Your task to perform on an android device: create a new album in the google photos Image 0: 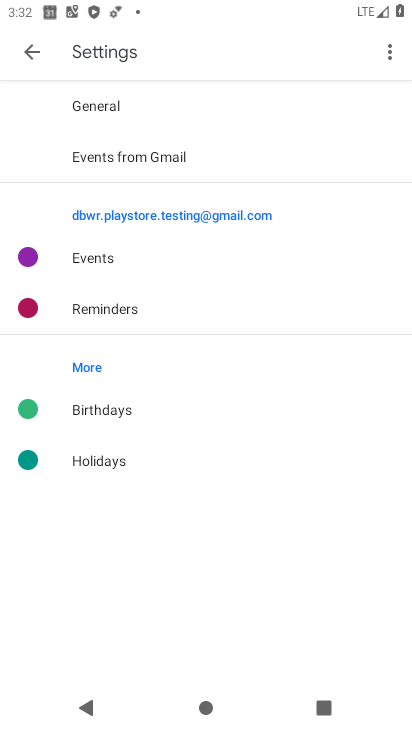
Step 0: press back button
Your task to perform on an android device: create a new album in the google photos Image 1: 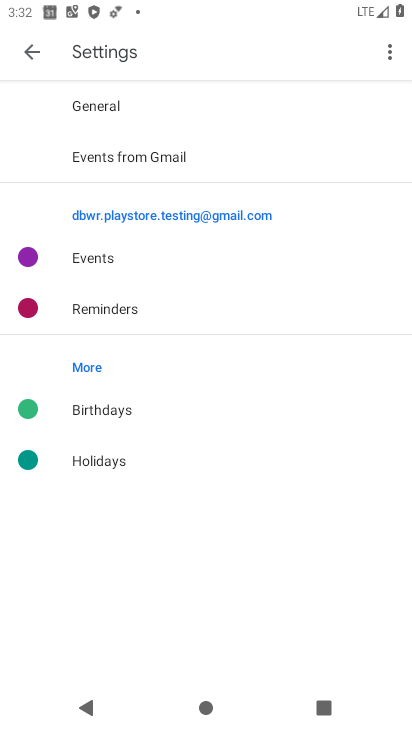
Step 1: press back button
Your task to perform on an android device: create a new album in the google photos Image 2: 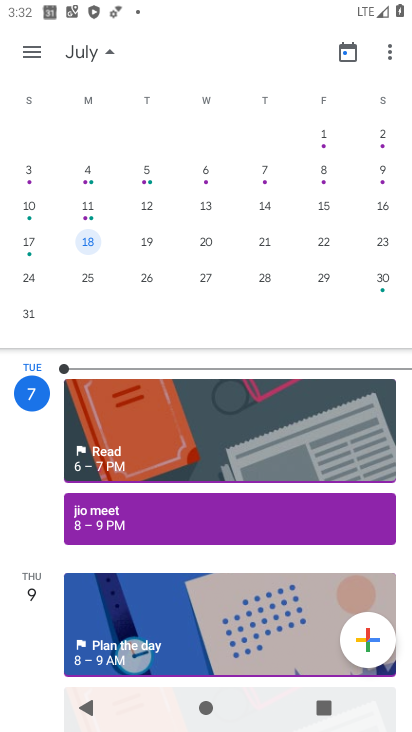
Step 2: press back button
Your task to perform on an android device: create a new album in the google photos Image 3: 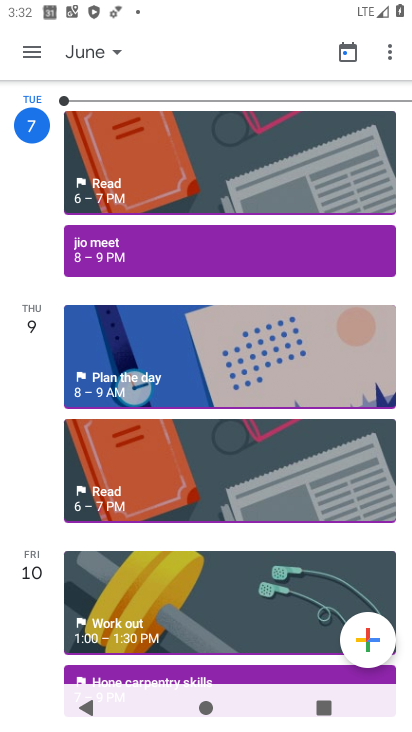
Step 3: press back button
Your task to perform on an android device: create a new album in the google photos Image 4: 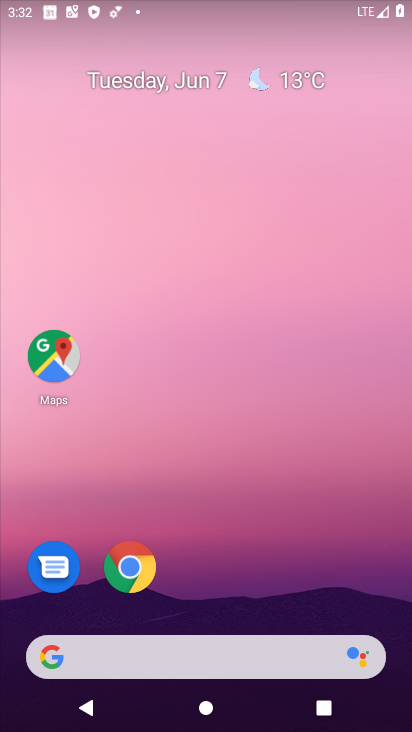
Step 4: drag from (237, 613) to (293, 45)
Your task to perform on an android device: create a new album in the google photos Image 5: 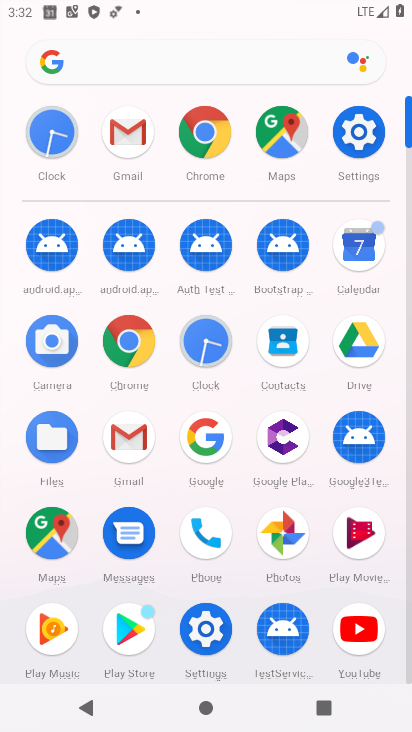
Step 5: click (275, 545)
Your task to perform on an android device: create a new album in the google photos Image 6: 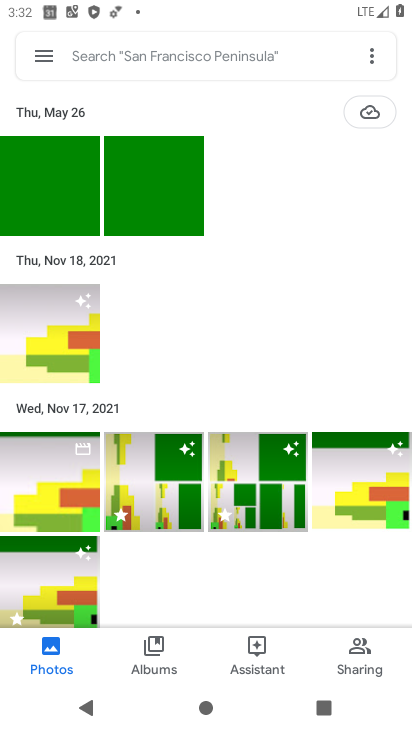
Step 6: click (370, 47)
Your task to perform on an android device: create a new album in the google photos Image 7: 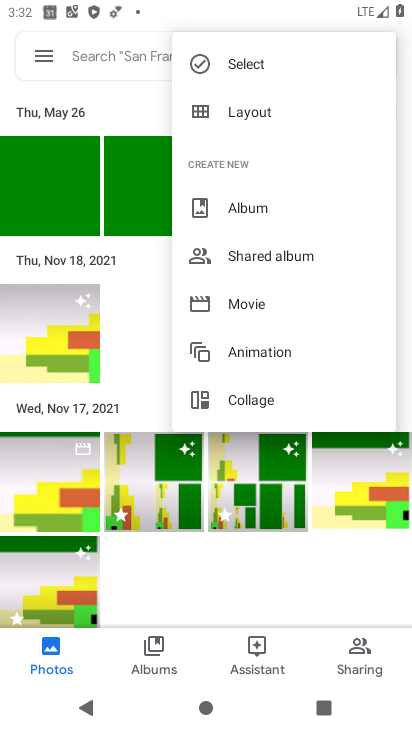
Step 7: click (258, 202)
Your task to perform on an android device: create a new album in the google photos Image 8: 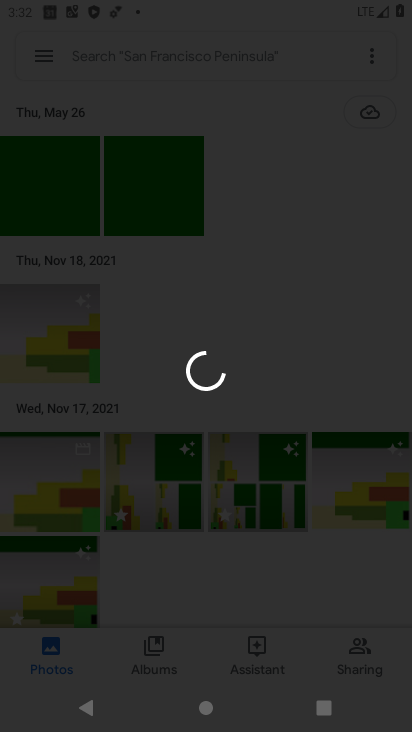
Step 8: task complete